Your task to perform on an android device: What's on my calendar today? Image 0: 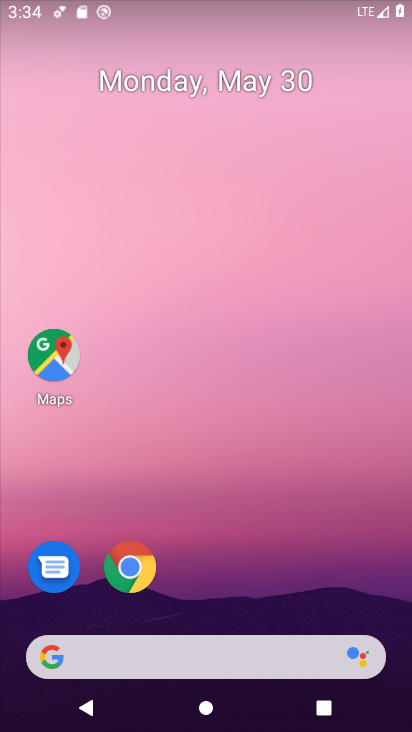
Step 0: drag from (210, 592) to (294, 85)
Your task to perform on an android device: What's on my calendar today? Image 1: 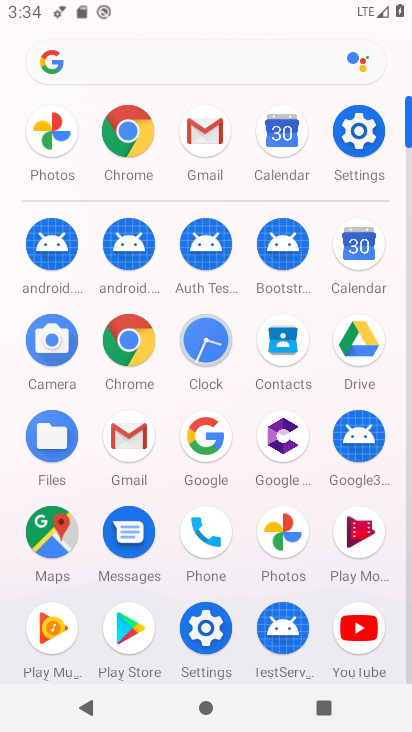
Step 1: click (291, 135)
Your task to perform on an android device: What's on my calendar today? Image 2: 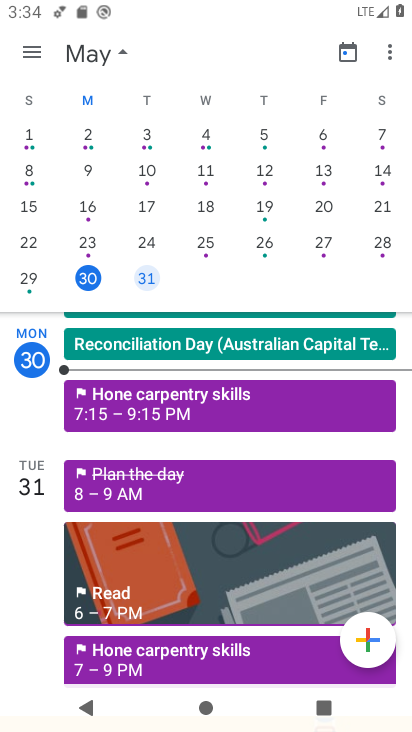
Step 2: task complete